Your task to perform on an android device: Find coffee shops on Maps Image 0: 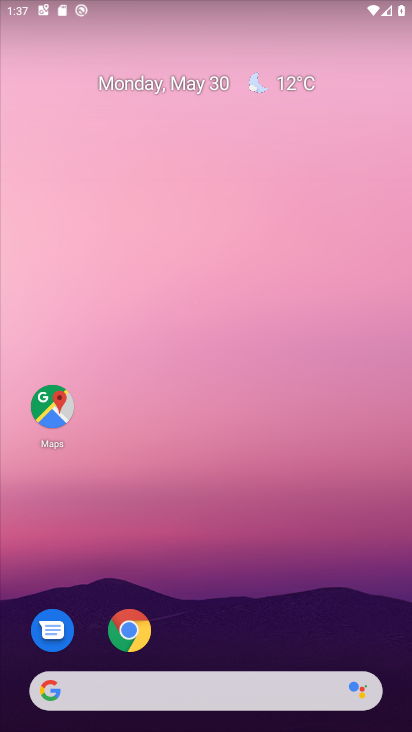
Step 0: click (66, 405)
Your task to perform on an android device: Find coffee shops on Maps Image 1: 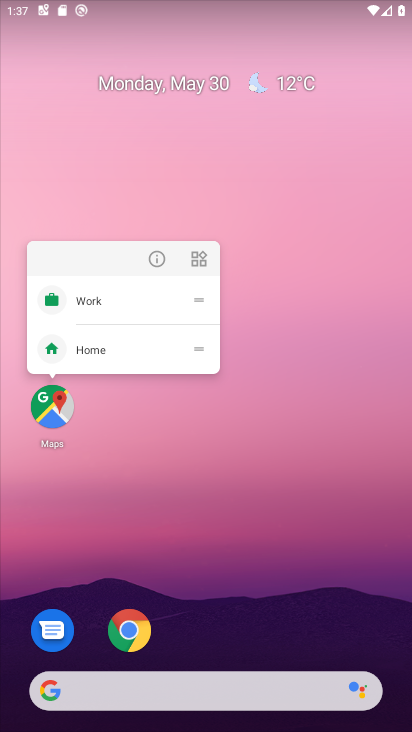
Step 1: click (57, 410)
Your task to perform on an android device: Find coffee shops on Maps Image 2: 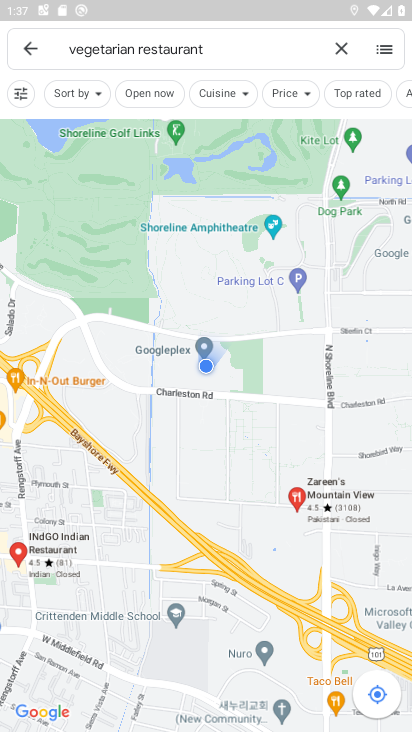
Step 2: click (238, 48)
Your task to perform on an android device: Find coffee shops on Maps Image 3: 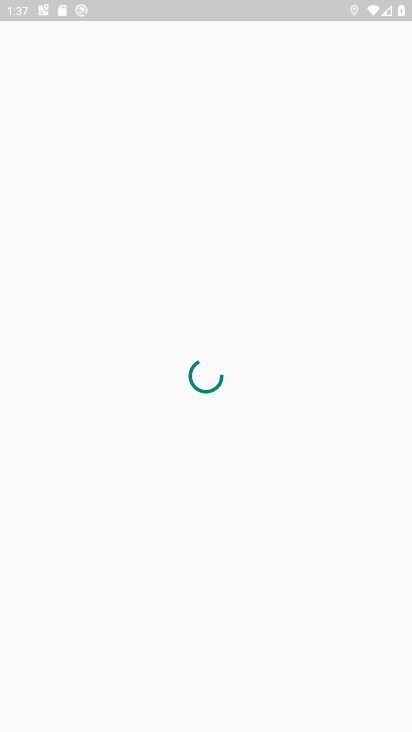
Step 3: click (382, 45)
Your task to perform on an android device: Find coffee shops on Maps Image 4: 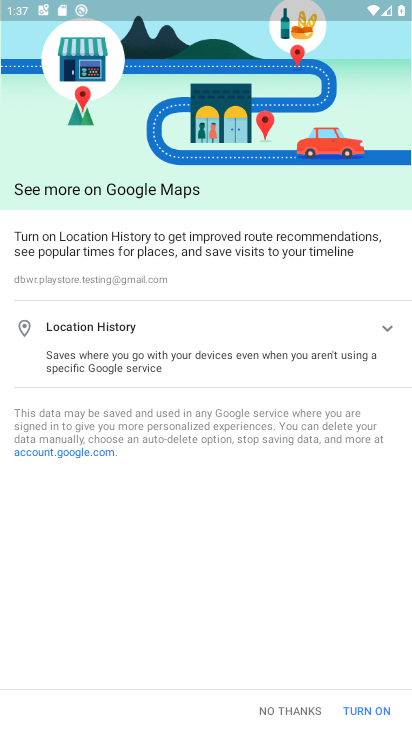
Step 4: click (354, 701)
Your task to perform on an android device: Find coffee shops on Maps Image 5: 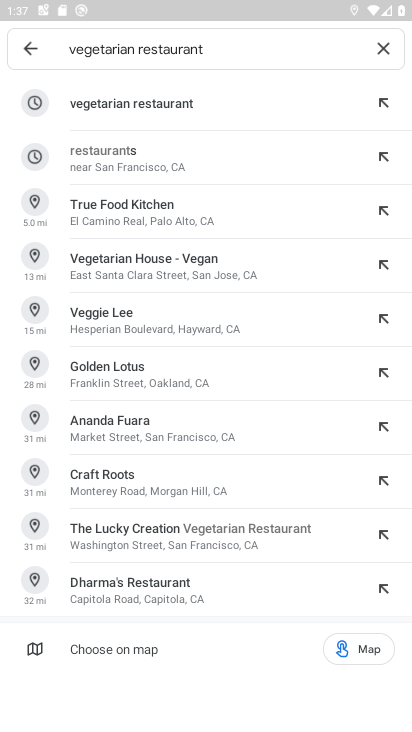
Step 5: click (374, 46)
Your task to perform on an android device: Find coffee shops on Maps Image 6: 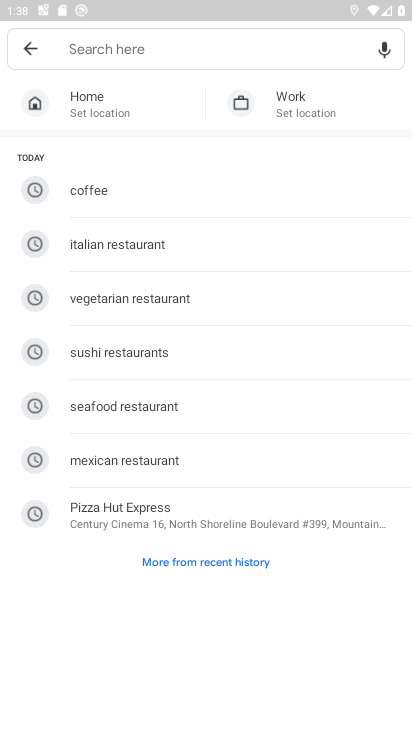
Step 6: click (145, 194)
Your task to perform on an android device: Find coffee shops on Maps Image 7: 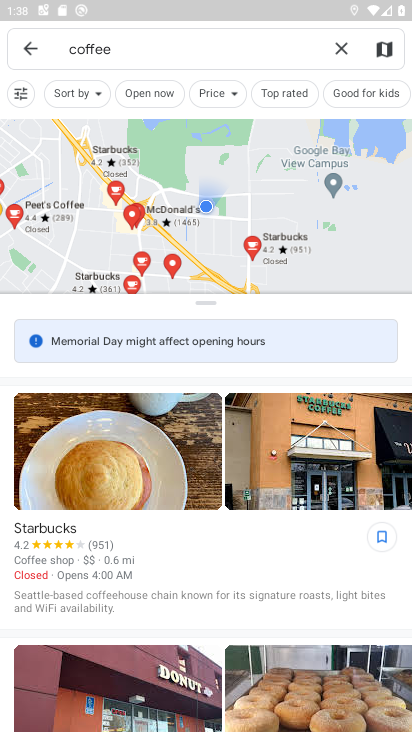
Step 7: task complete